Your task to perform on an android device: Go to location settings Image 0: 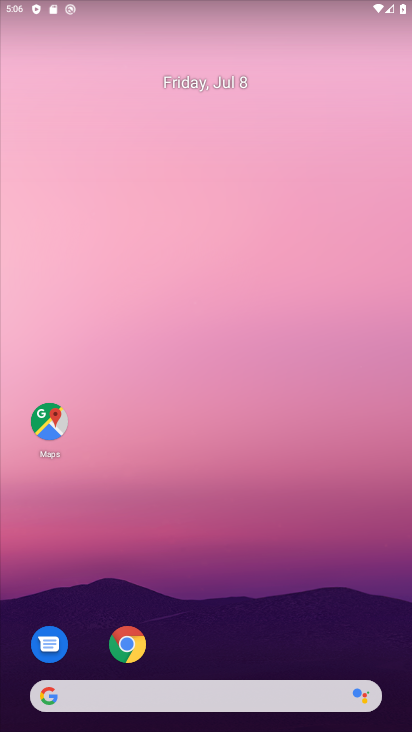
Step 0: click (311, 140)
Your task to perform on an android device: Go to location settings Image 1: 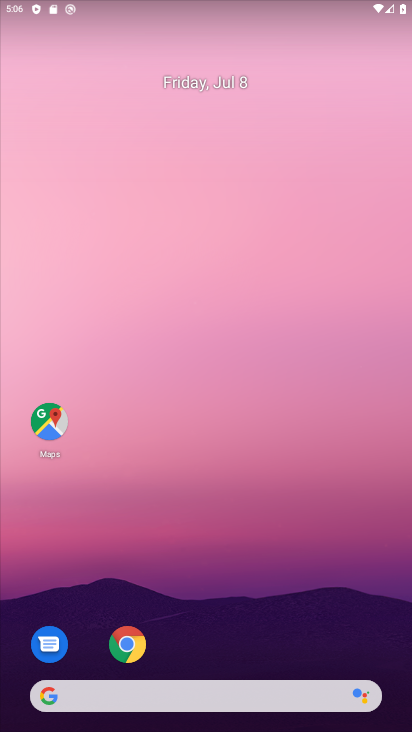
Step 1: drag from (254, 592) to (130, 37)
Your task to perform on an android device: Go to location settings Image 2: 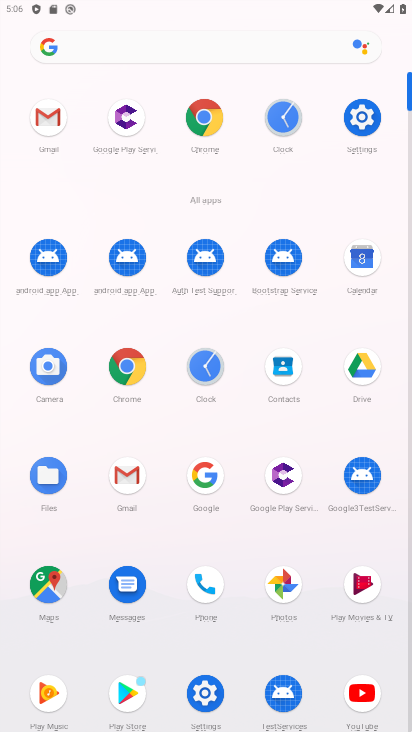
Step 2: click (202, 690)
Your task to perform on an android device: Go to location settings Image 3: 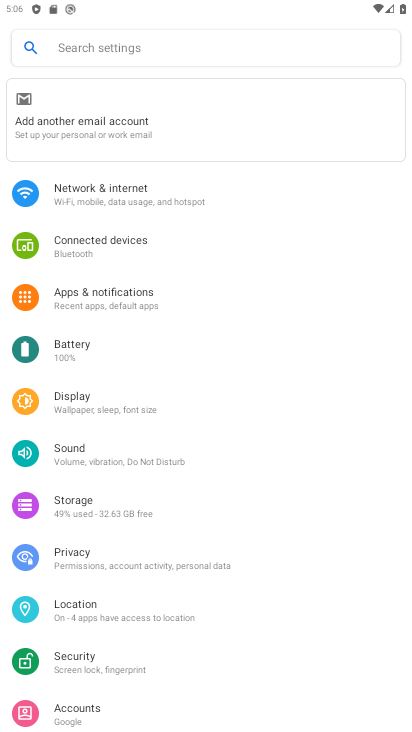
Step 3: click (163, 621)
Your task to perform on an android device: Go to location settings Image 4: 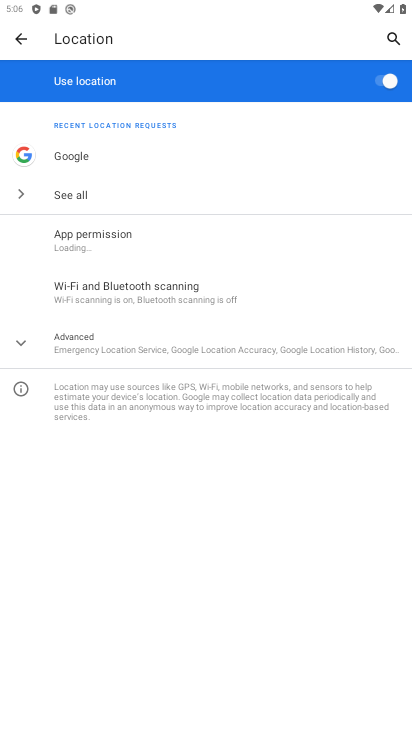
Step 4: task complete